Your task to perform on an android device: Open Youtube and go to the subscriptions tab Image 0: 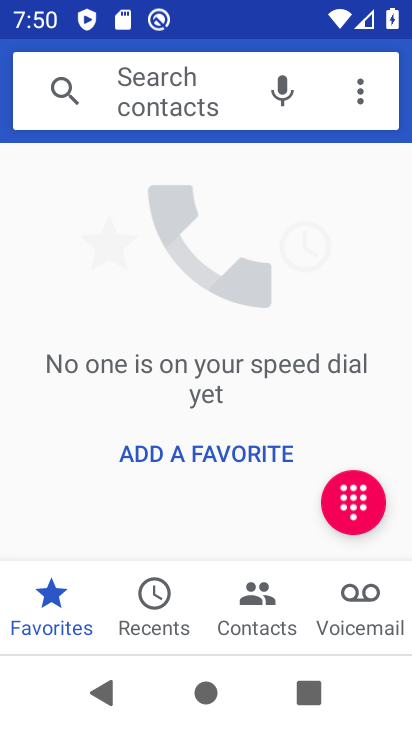
Step 0: press back button
Your task to perform on an android device: Open Youtube and go to the subscriptions tab Image 1: 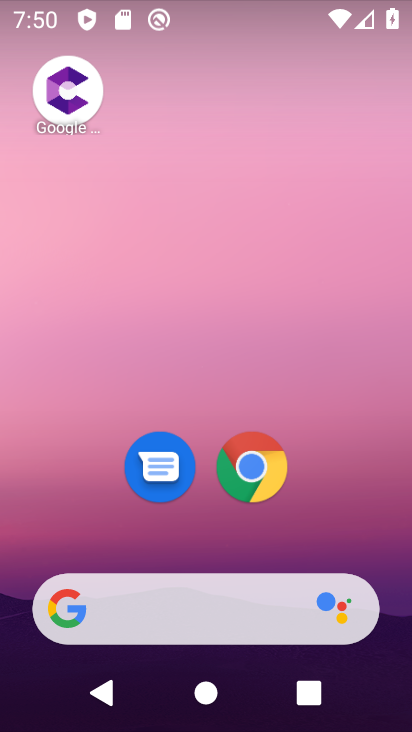
Step 1: drag from (158, 498) to (247, 36)
Your task to perform on an android device: Open Youtube and go to the subscriptions tab Image 2: 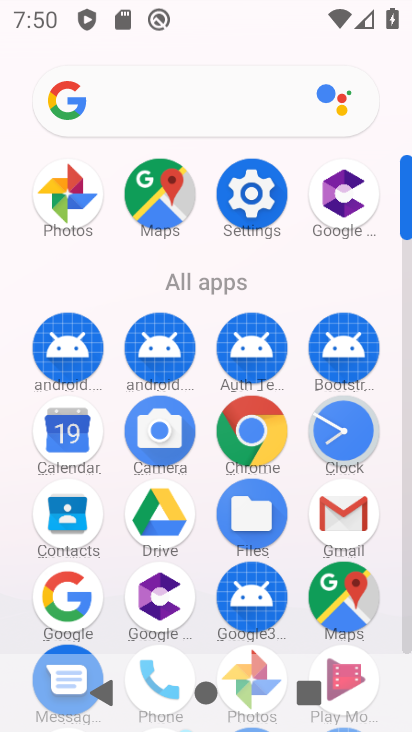
Step 2: drag from (172, 609) to (271, 112)
Your task to perform on an android device: Open Youtube and go to the subscriptions tab Image 3: 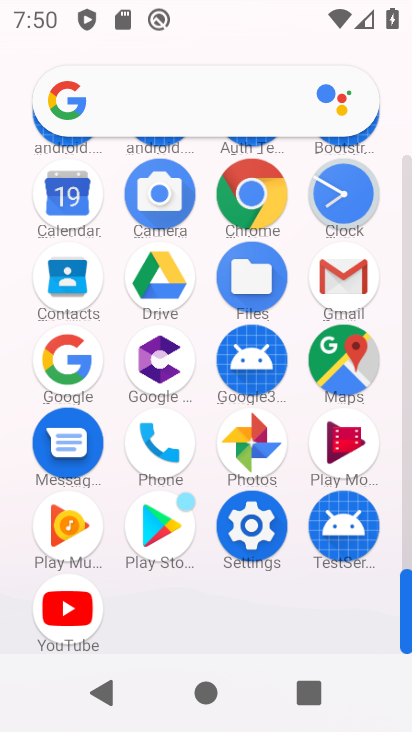
Step 3: click (83, 628)
Your task to perform on an android device: Open Youtube and go to the subscriptions tab Image 4: 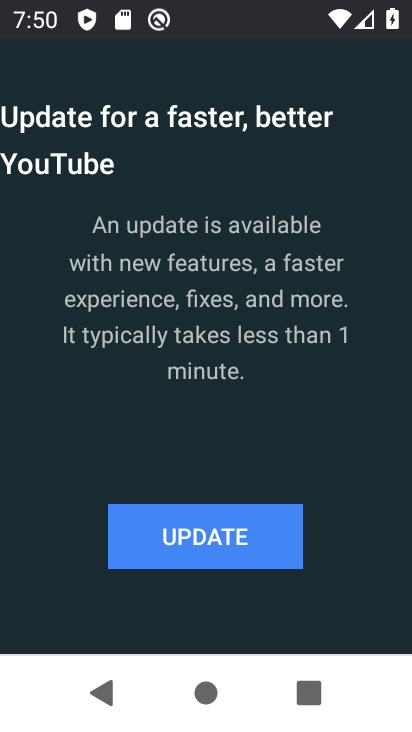
Step 4: click (235, 545)
Your task to perform on an android device: Open Youtube and go to the subscriptions tab Image 5: 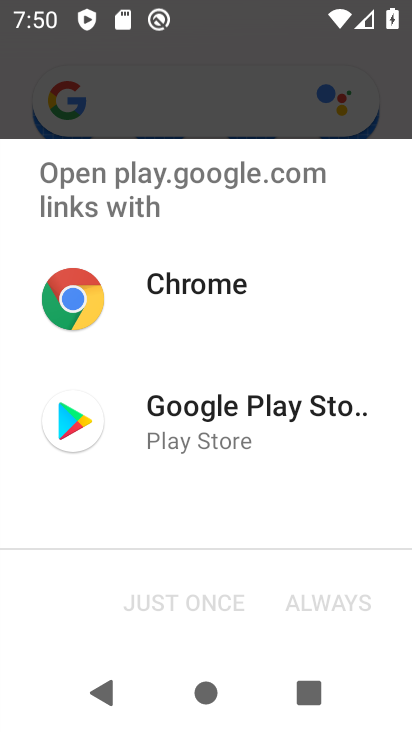
Step 5: click (205, 453)
Your task to perform on an android device: Open Youtube and go to the subscriptions tab Image 6: 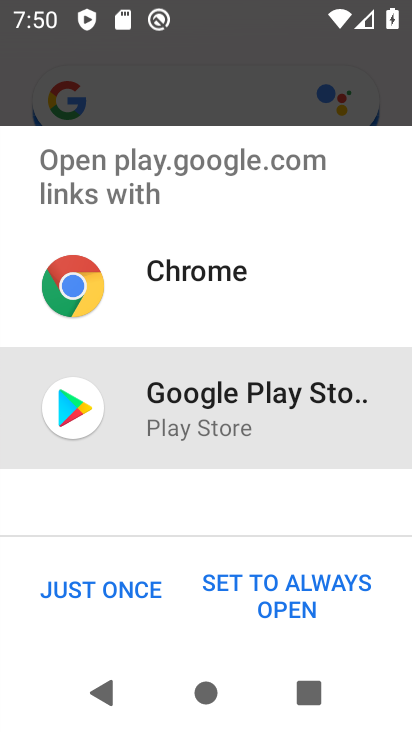
Step 6: click (110, 594)
Your task to perform on an android device: Open Youtube and go to the subscriptions tab Image 7: 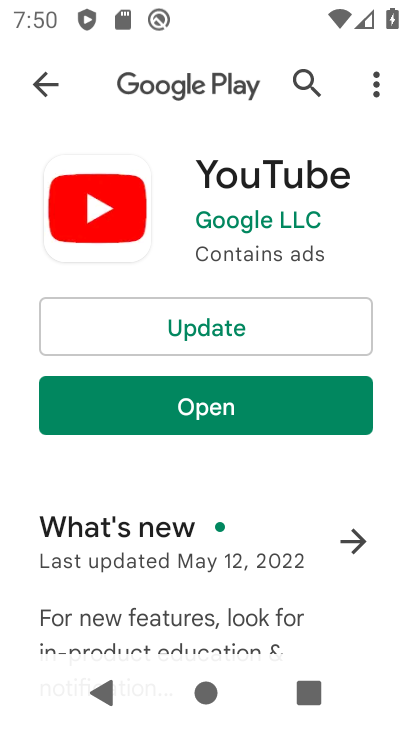
Step 7: click (205, 336)
Your task to perform on an android device: Open Youtube and go to the subscriptions tab Image 8: 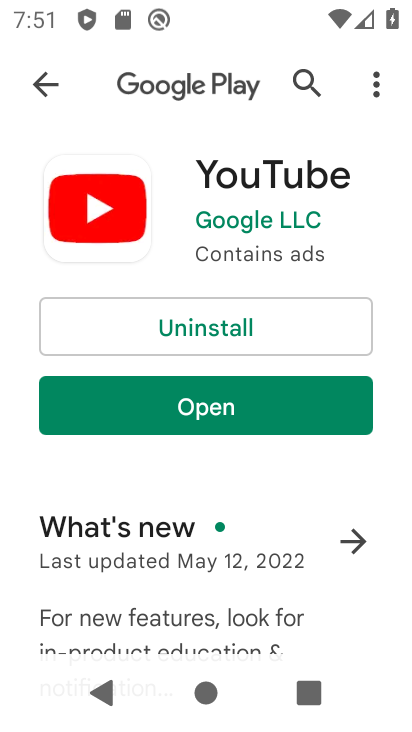
Step 8: click (192, 414)
Your task to perform on an android device: Open Youtube and go to the subscriptions tab Image 9: 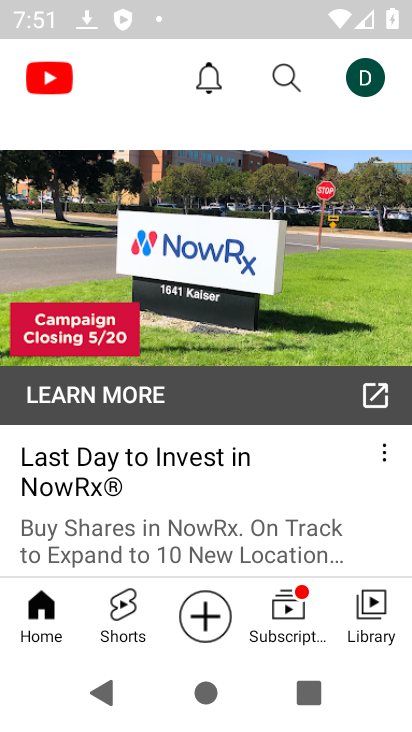
Step 9: click (300, 622)
Your task to perform on an android device: Open Youtube and go to the subscriptions tab Image 10: 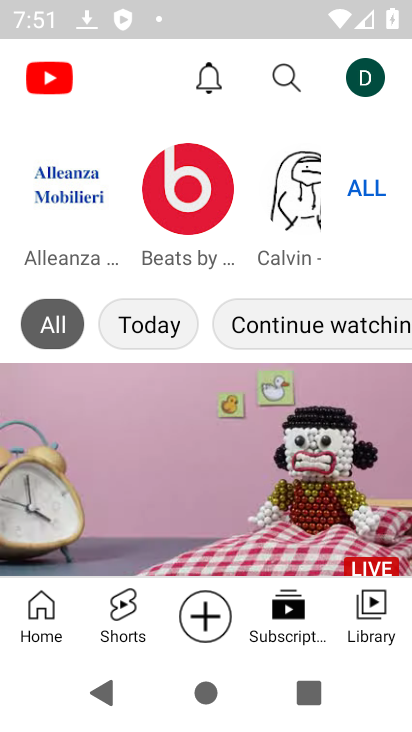
Step 10: task complete